Your task to perform on an android device: change timer sound Image 0: 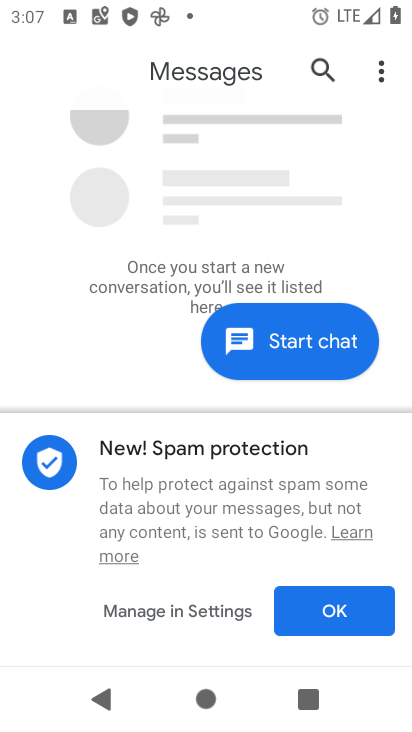
Step 0: press home button
Your task to perform on an android device: change timer sound Image 1: 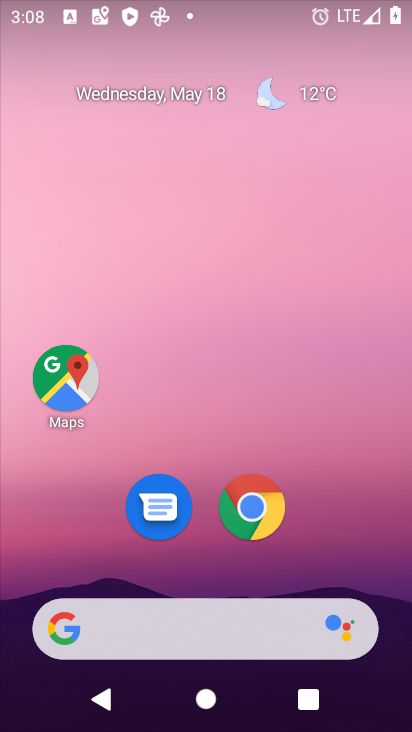
Step 1: drag from (390, 620) to (313, 137)
Your task to perform on an android device: change timer sound Image 2: 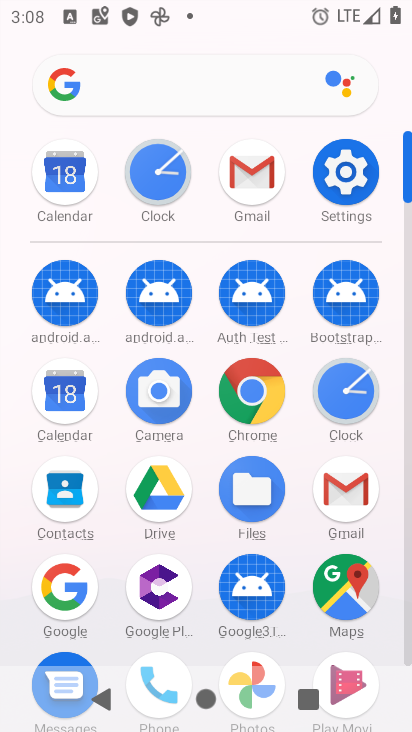
Step 2: click (409, 656)
Your task to perform on an android device: change timer sound Image 3: 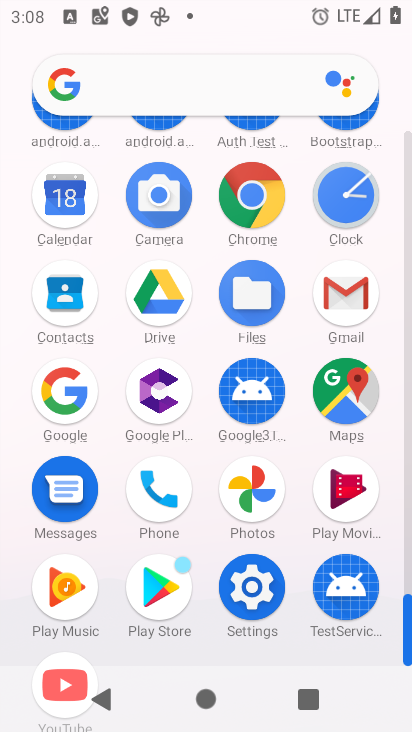
Step 3: click (251, 585)
Your task to perform on an android device: change timer sound Image 4: 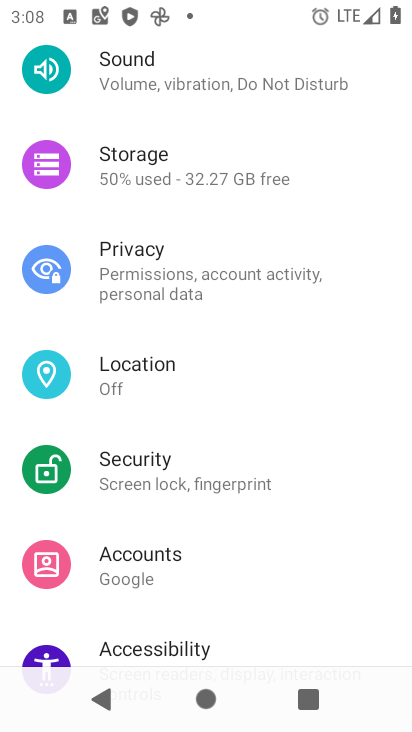
Step 4: drag from (340, 186) to (304, 500)
Your task to perform on an android device: change timer sound Image 5: 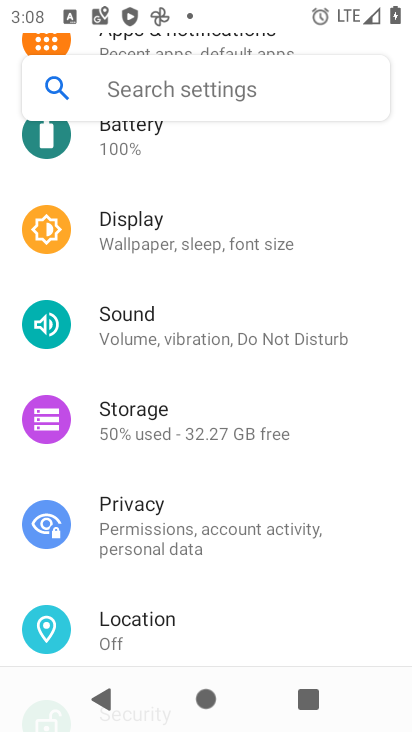
Step 5: press home button
Your task to perform on an android device: change timer sound Image 6: 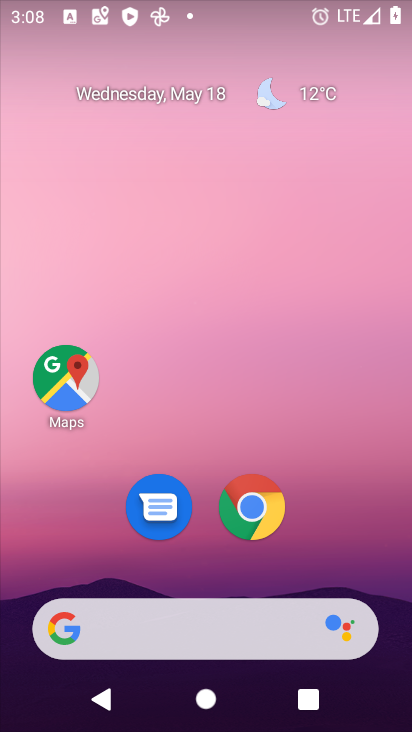
Step 6: drag from (390, 604) to (315, 113)
Your task to perform on an android device: change timer sound Image 7: 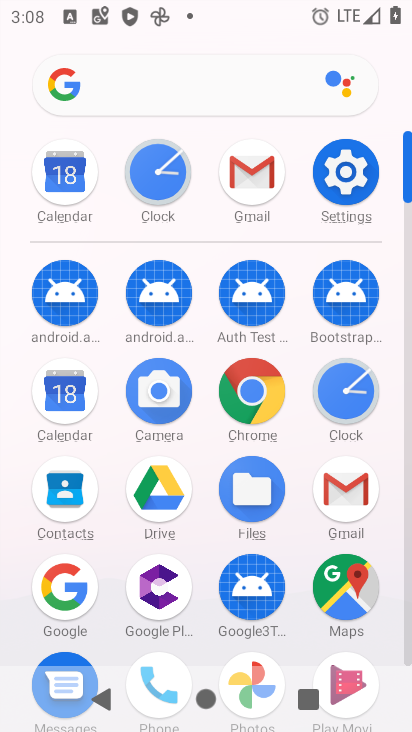
Step 7: click (341, 387)
Your task to perform on an android device: change timer sound Image 8: 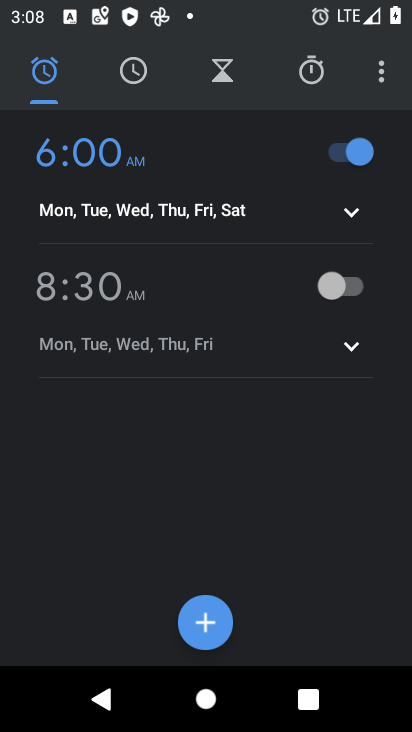
Step 8: click (378, 77)
Your task to perform on an android device: change timer sound Image 9: 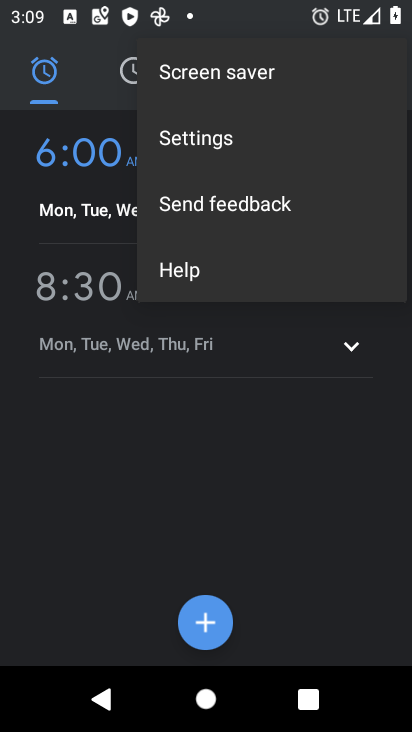
Step 9: click (191, 131)
Your task to perform on an android device: change timer sound Image 10: 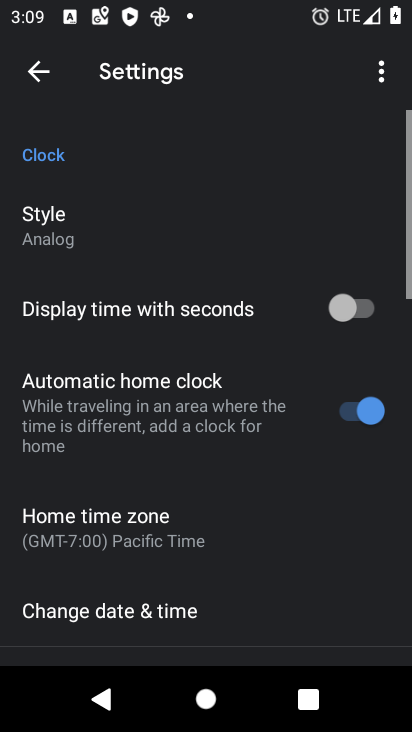
Step 10: drag from (260, 558) to (267, 119)
Your task to perform on an android device: change timer sound Image 11: 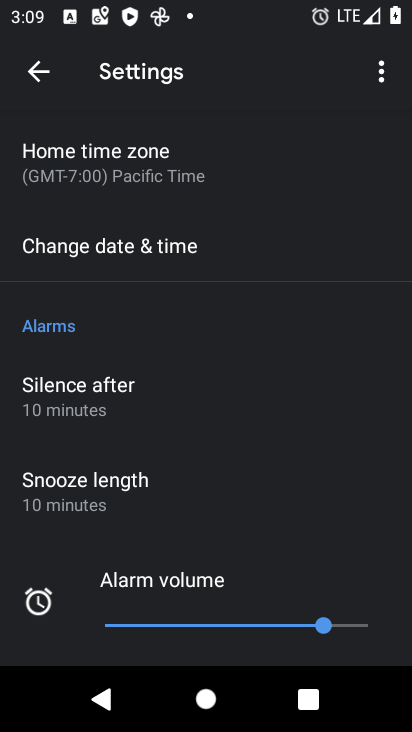
Step 11: drag from (229, 551) to (259, 193)
Your task to perform on an android device: change timer sound Image 12: 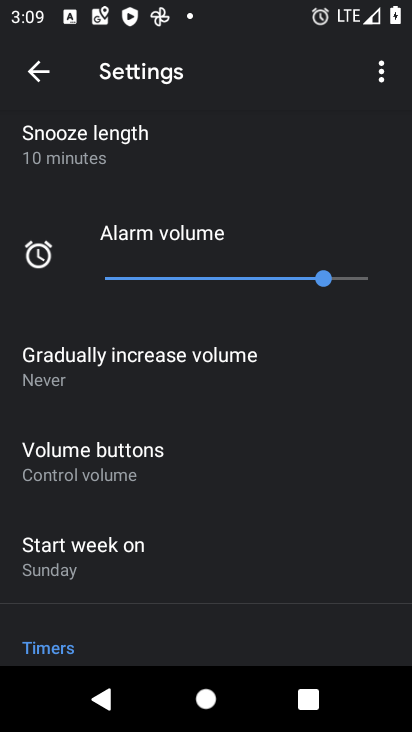
Step 12: drag from (221, 605) to (215, 212)
Your task to perform on an android device: change timer sound Image 13: 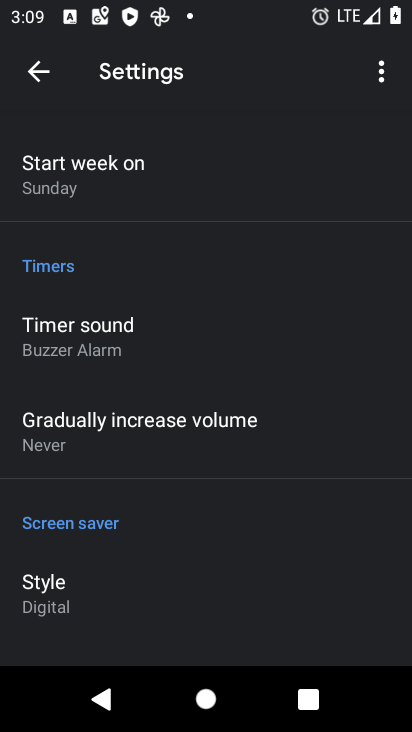
Step 13: drag from (219, 587) to (247, 213)
Your task to perform on an android device: change timer sound Image 14: 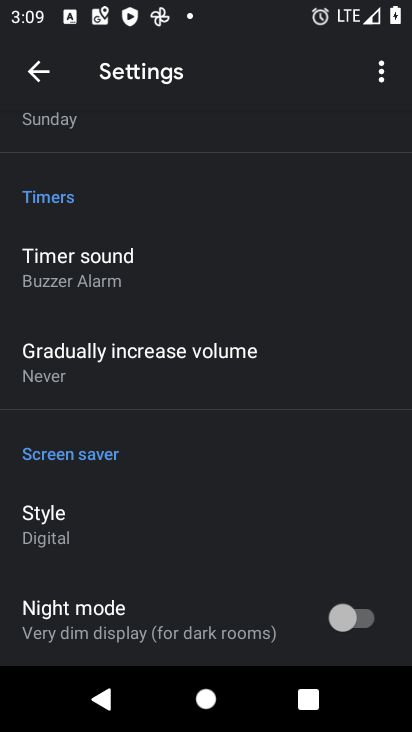
Step 14: click (96, 262)
Your task to perform on an android device: change timer sound Image 15: 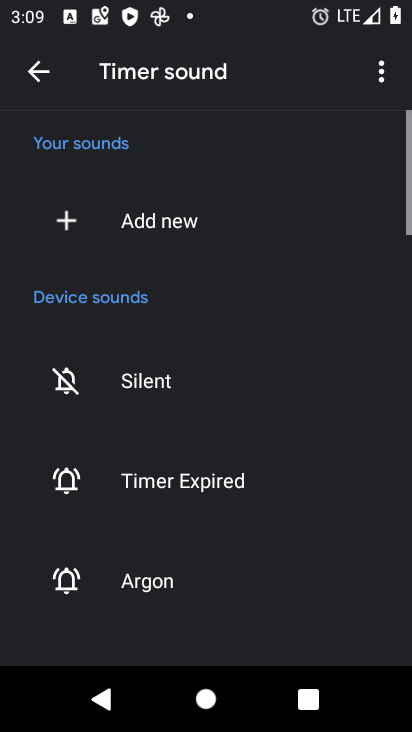
Step 15: drag from (265, 553) to (256, 141)
Your task to perform on an android device: change timer sound Image 16: 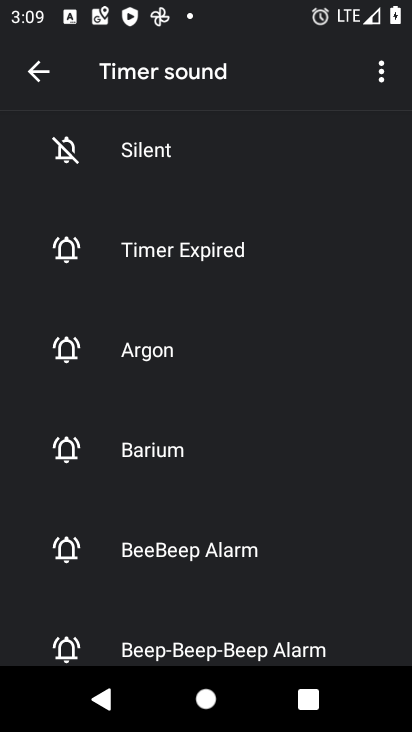
Step 16: click (193, 562)
Your task to perform on an android device: change timer sound Image 17: 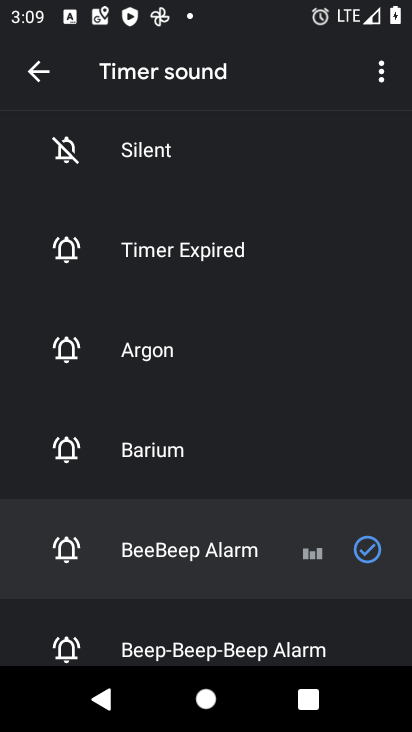
Step 17: task complete